Your task to perform on an android device: Open my contact list Image 0: 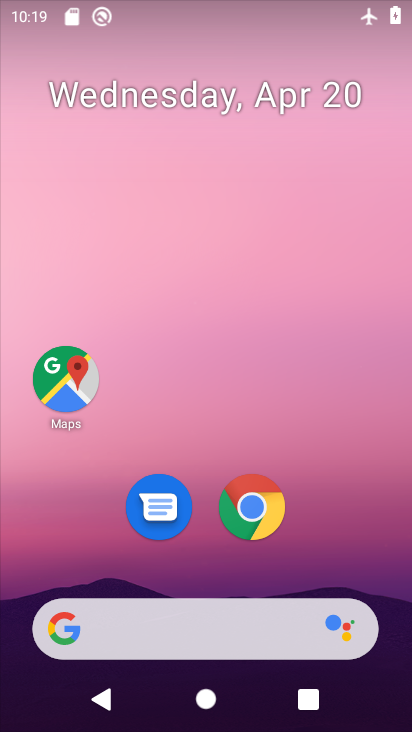
Step 0: drag from (207, 570) to (218, 110)
Your task to perform on an android device: Open my contact list Image 1: 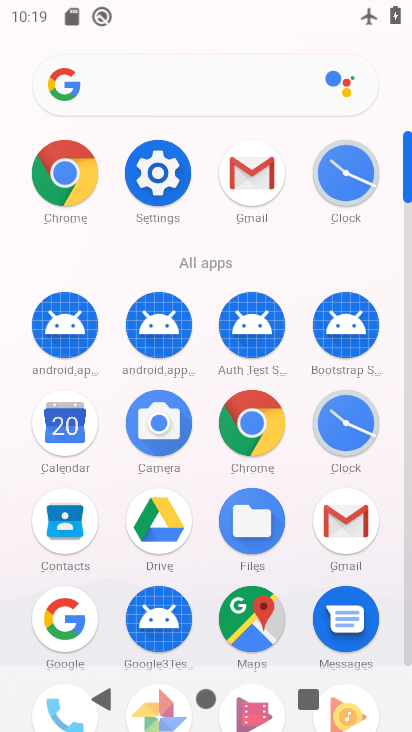
Step 1: click (73, 521)
Your task to perform on an android device: Open my contact list Image 2: 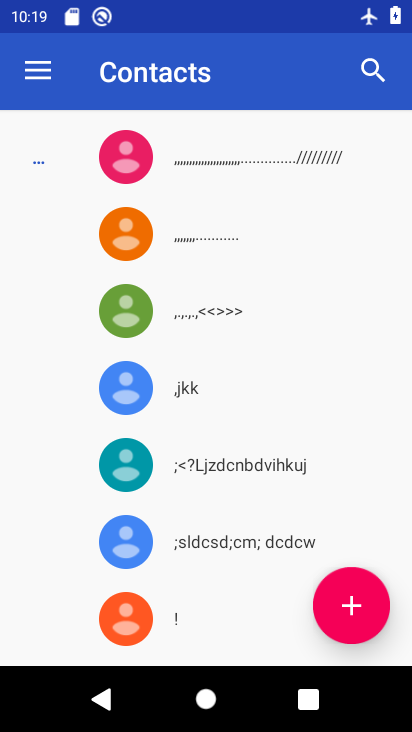
Step 2: task complete